Your task to perform on an android device: What's the weather? Image 0: 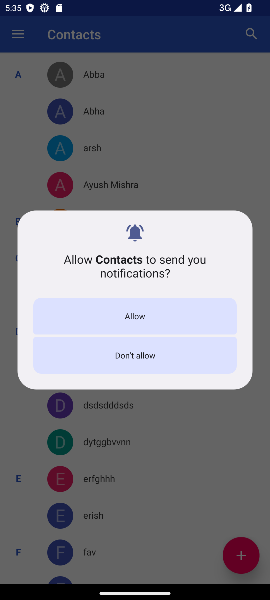
Step 0: press home button
Your task to perform on an android device: What's the weather? Image 1: 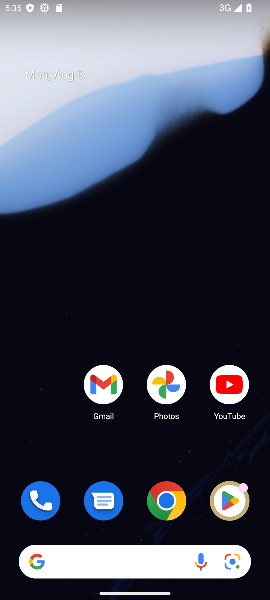
Step 1: click (77, 557)
Your task to perform on an android device: What's the weather? Image 2: 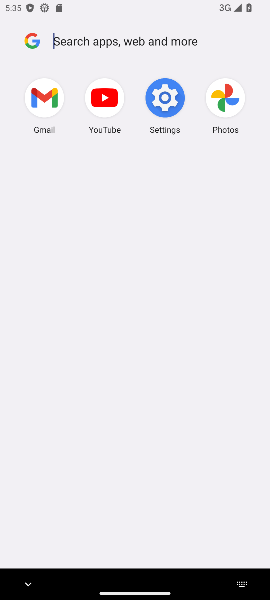
Step 2: type "What's the weather?"
Your task to perform on an android device: What's the weather? Image 3: 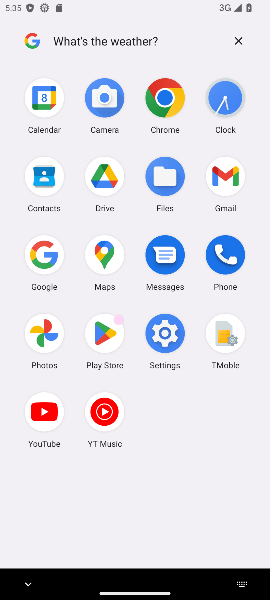
Step 3: type ""
Your task to perform on an android device: What's the weather? Image 4: 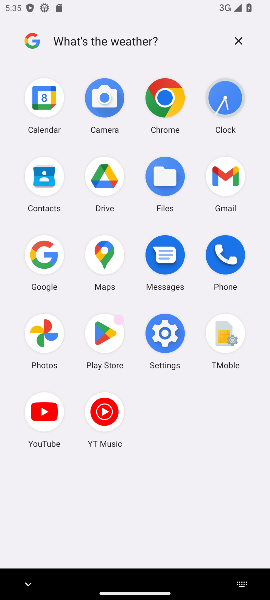
Step 4: type ""
Your task to perform on an android device: What's the weather? Image 5: 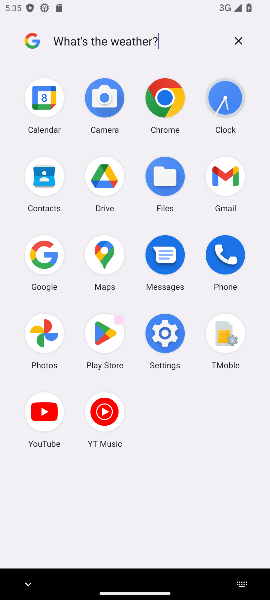
Step 5: task complete